Your task to perform on an android device: Add logitech g933 to the cart on newegg Image 0: 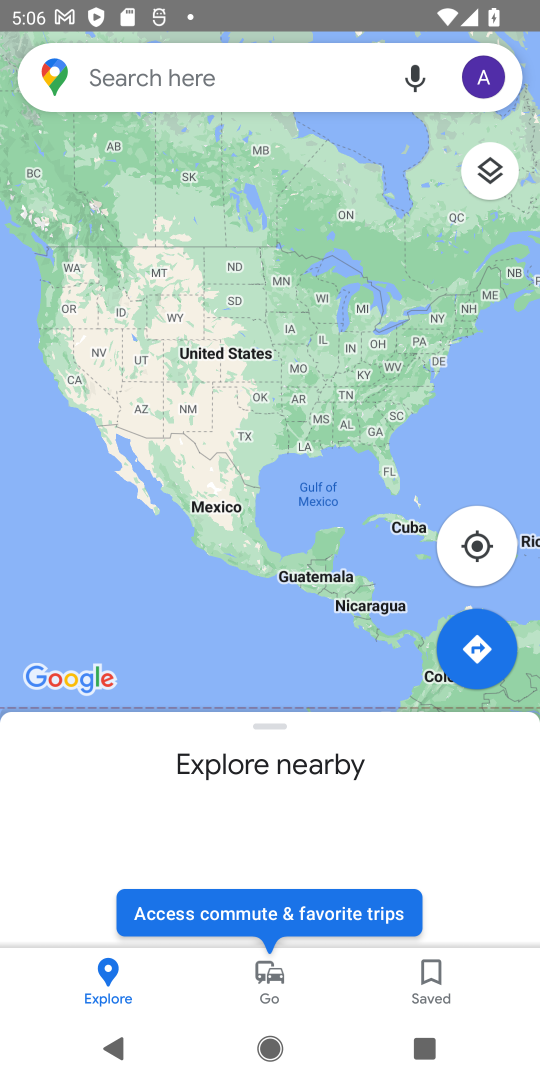
Step 0: press home button
Your task to perform on an android device: Add logitech g933 to the cart on newegg Image 1: 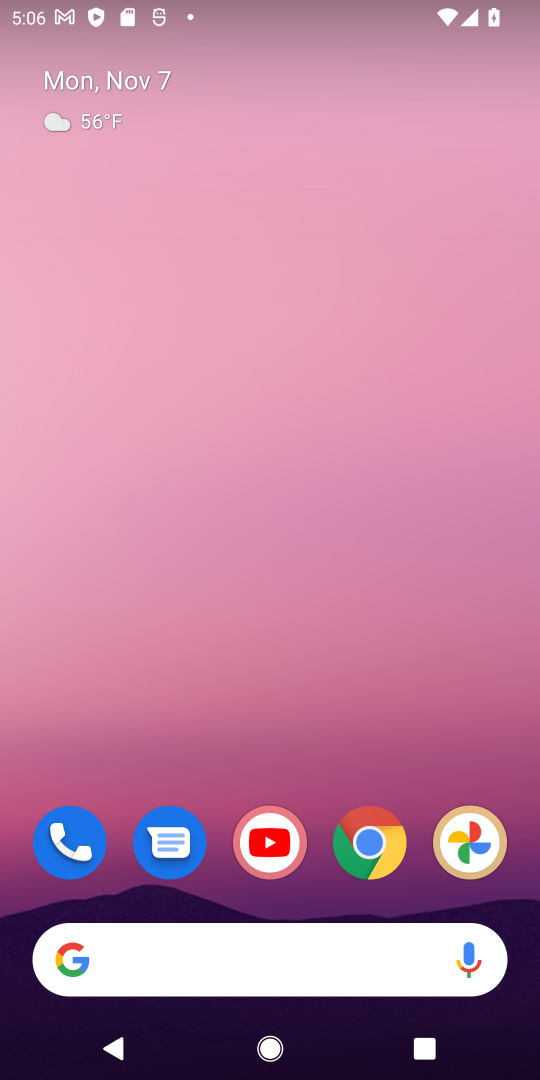
Step 1: click (363, 837)
Your task to perform on an android device: Add logitech g933 to the cart on newegg Image 2: 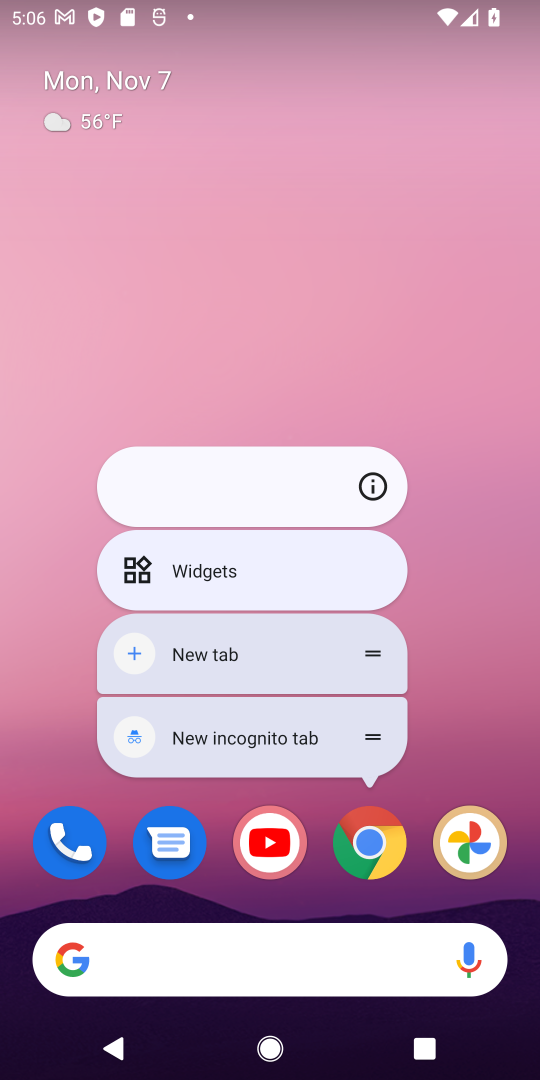
Step 2: click (365, 832)
Your task to perform on an android device: Add logitech g933 to the cart on newegg Image 3: 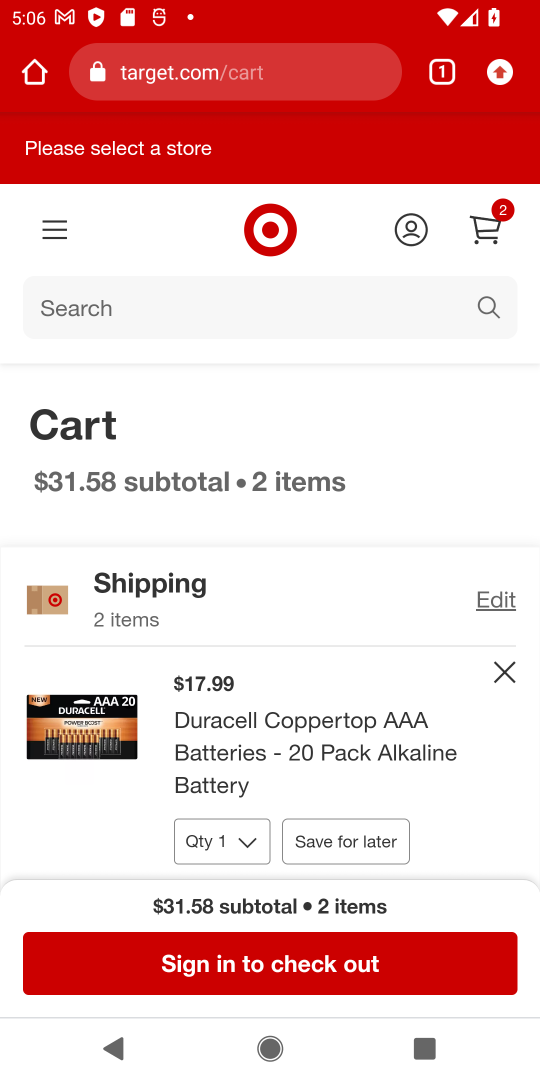
Step 3: click (196, 76)
Your task to perform on an android device: Add logitech g933 to the cart on newegg Image 4: 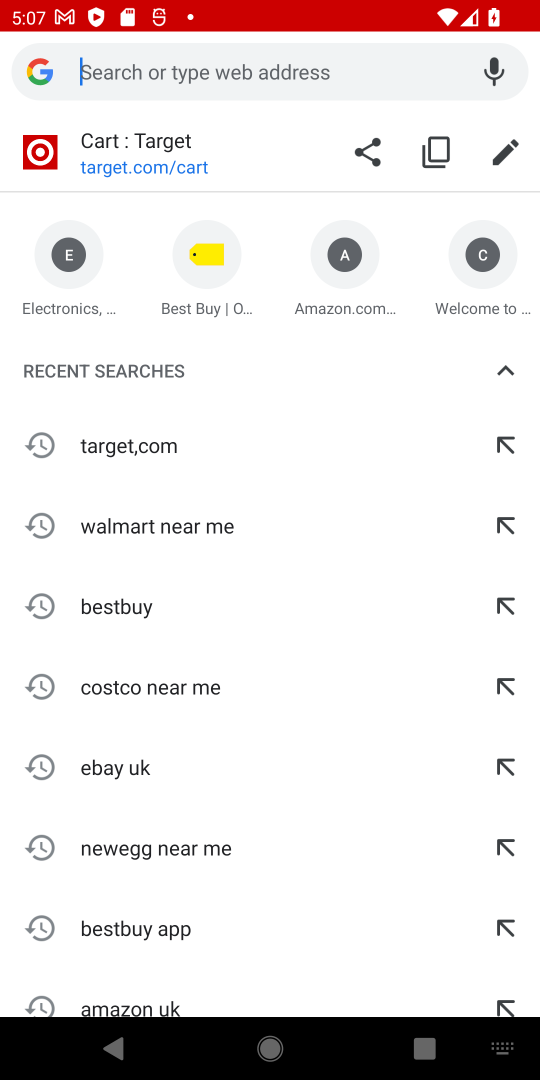
Step 4: type " newegg"
Your task to perform on an android device: Add logitech g933 to the cart on newegg Image 5: 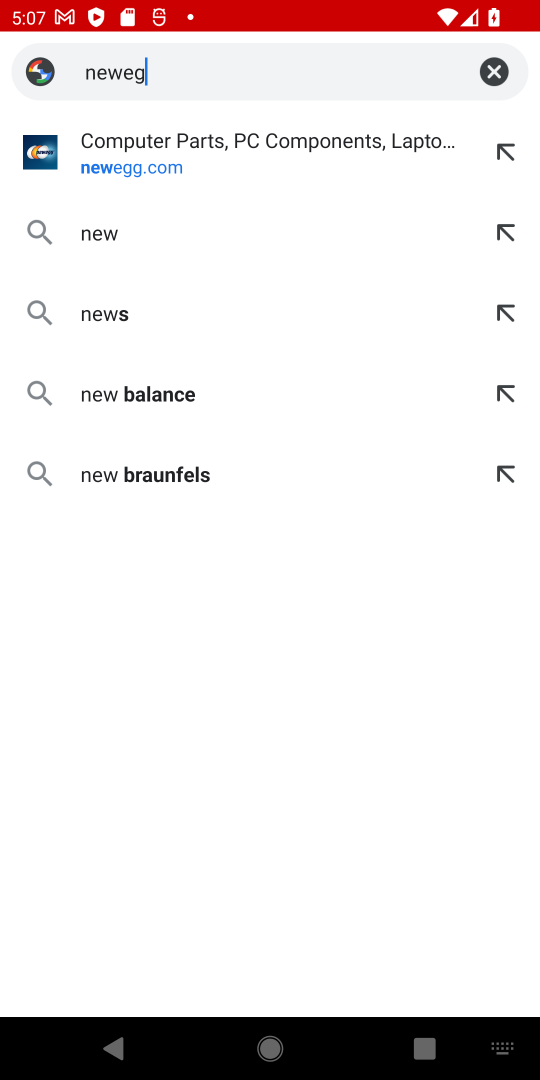
Step 5: press enter
Your task to perform on an android device: Add logitech g933 to the cart on newegg Image 6: 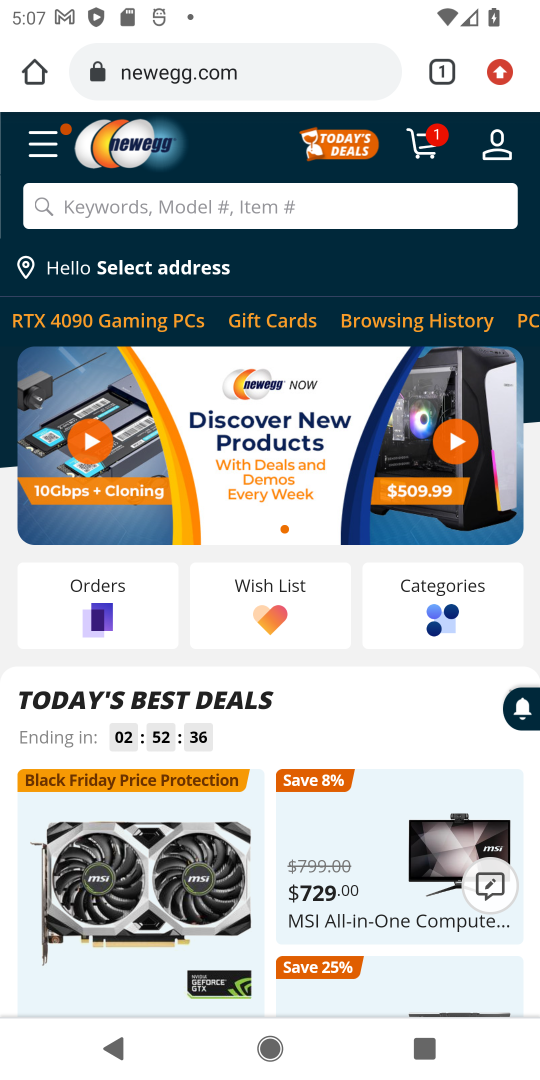
Step 6: click (263, 206)
Your task to perform on an android device: Add logitech g933 to the cart on newegg Image 7: 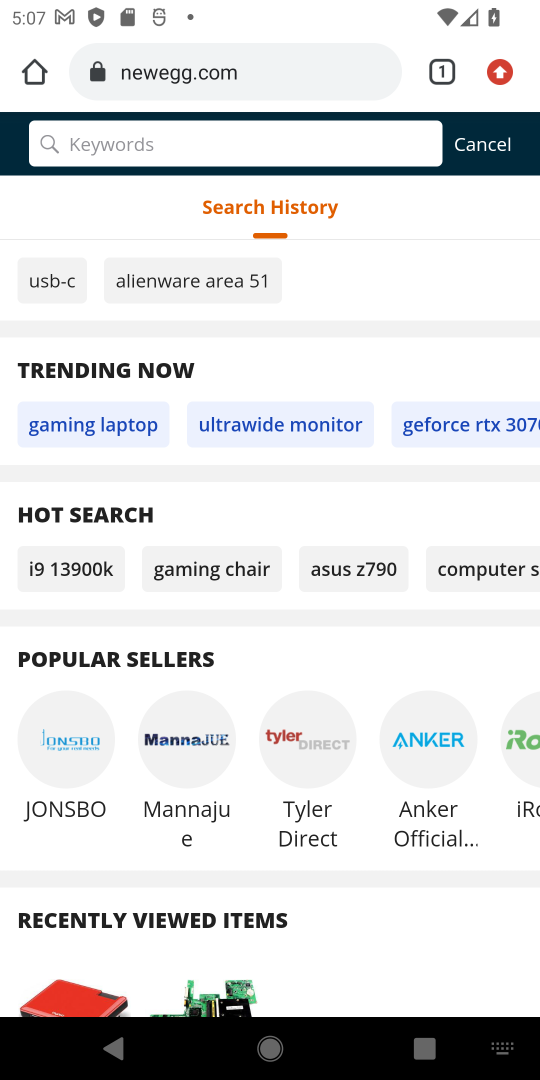
Step 7: press enter
Your task to perform on an android device: Add logitech g933 to the cart on newegg Image 8: 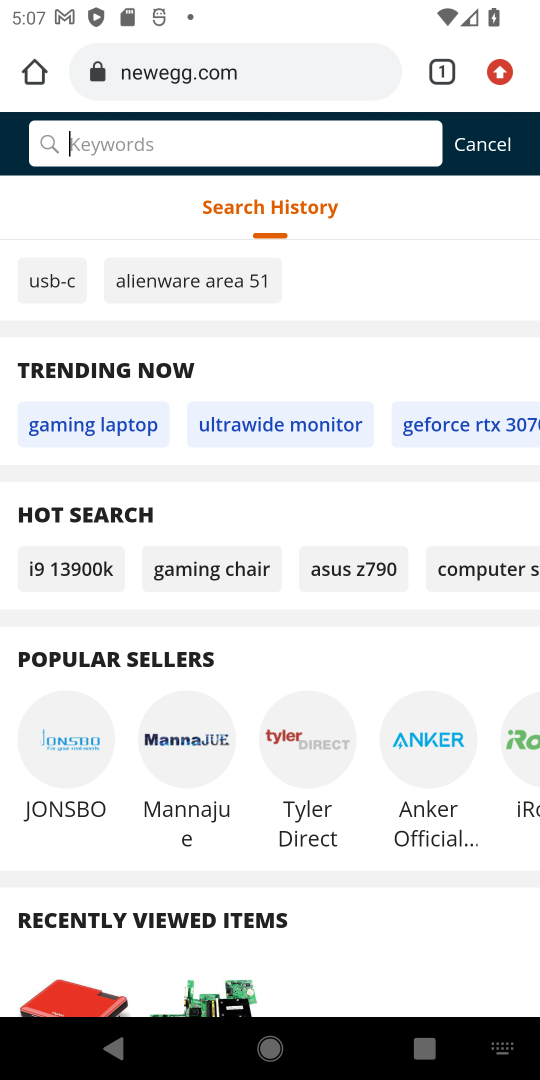
Step 8: type "logitech g933"
Your task to perform on an android device: Add logitech g933 to the cart on newegg Image 9: 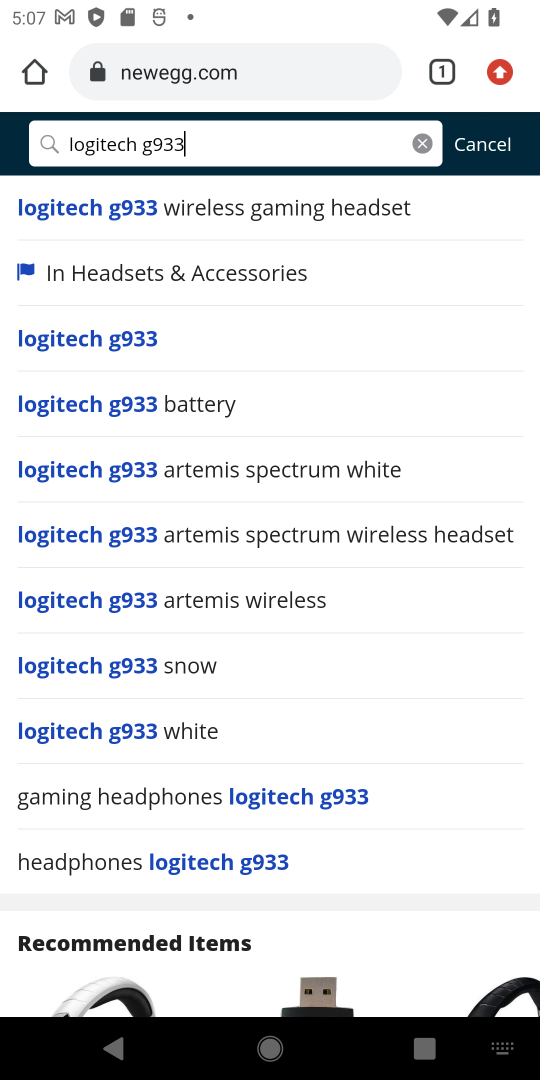
Step 9: press enter
Your task to perform on an android device: Add logitech g933 to the cart on newegg Image 10: 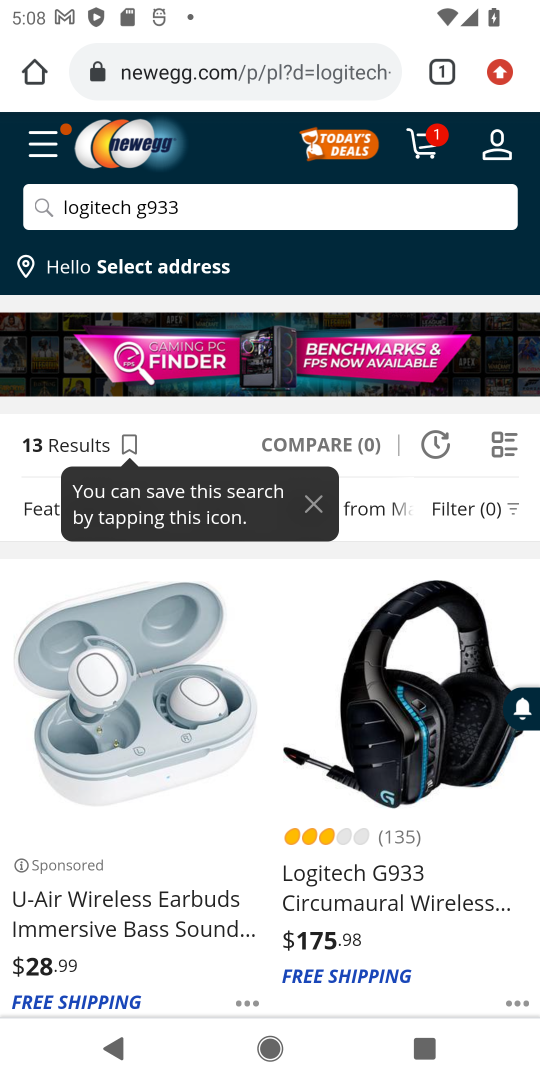
Step 10: drag from (226, 792) to (280, 539)
Your task to perform on an android device: Add logitech g933 to the cart on newegg Image 11: 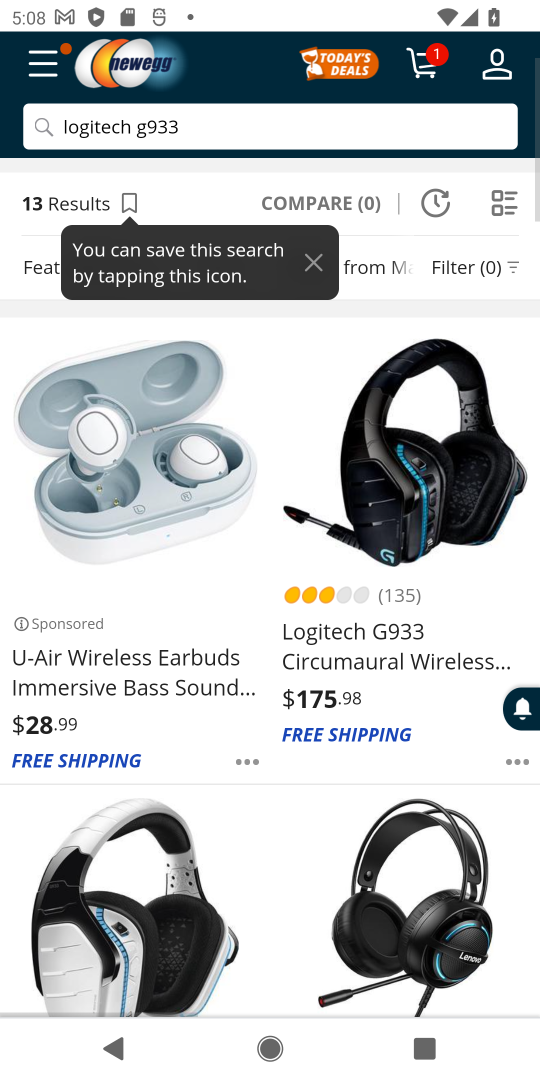
Step 11: click (392, 687)
Your task to perform on an android device: Add logitech g933 to the cart on newegg Image 12: 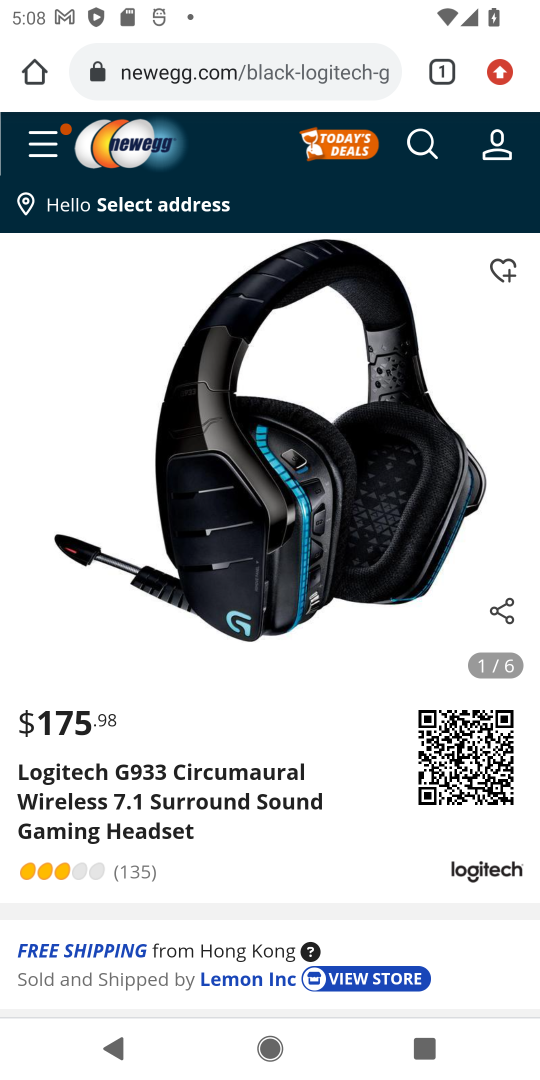
Step 12: drag from (306, 754) to (411, 157)
Your task to perform on an android device: Add logitech g933 to the cart on newegg Image 13: 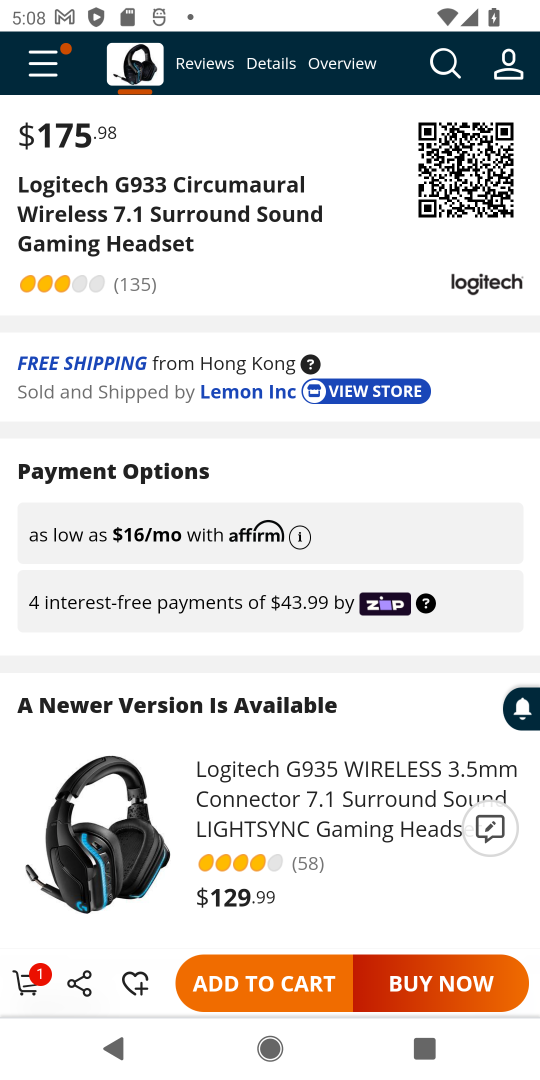
Step 13: click (240, 977)
Your task to perform on an android device: Add logitech g933 to the cart on newegg Image 14: 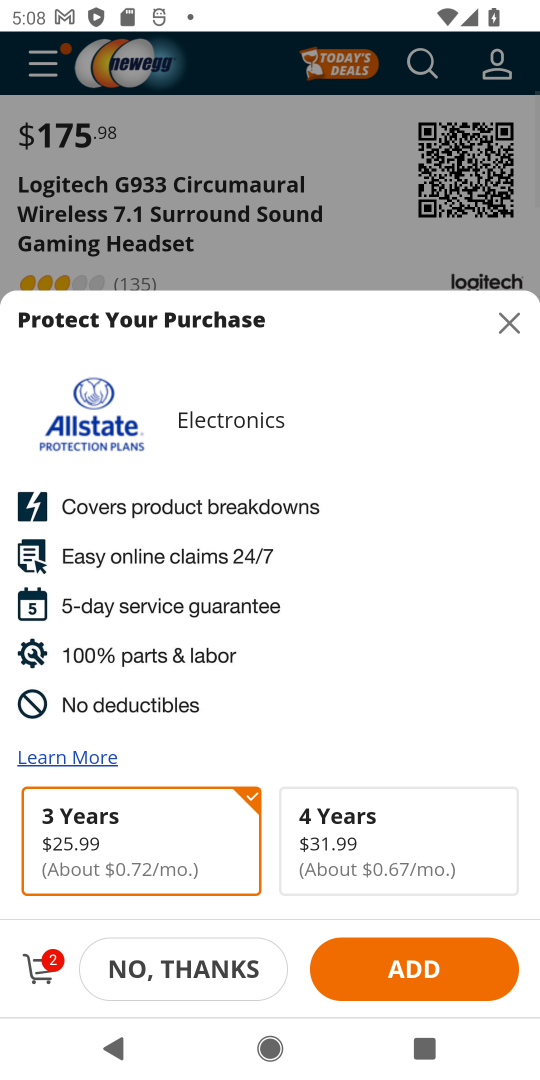
Step 14: click (206, 965)
Your task to perform on an android device: Add logitech g933 to the cart on newegg Image 15: 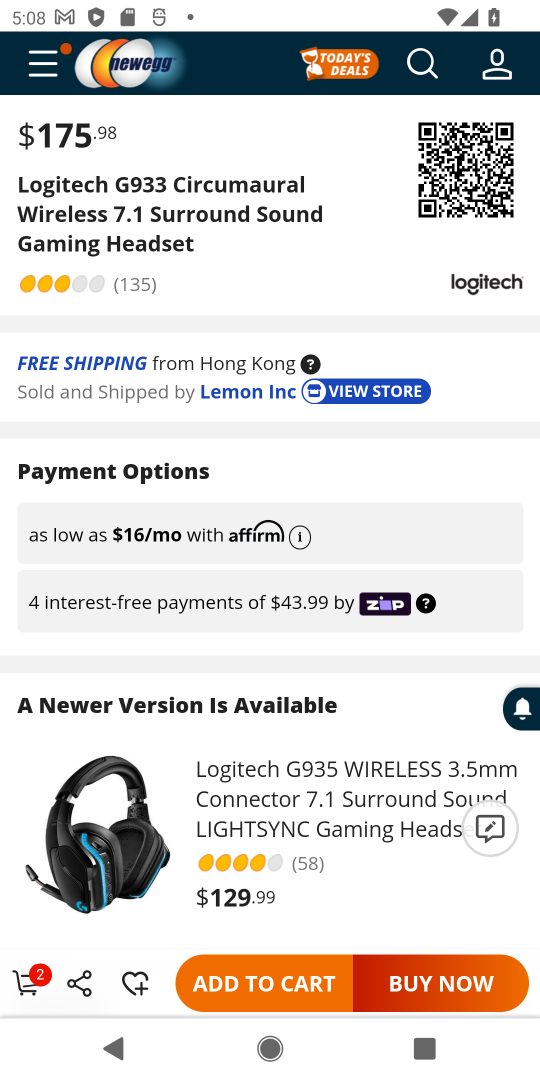
Step 15: click (32, 977)
Your task to perform on an android device: Add logitech g933 to the cart on newegg Image 16: 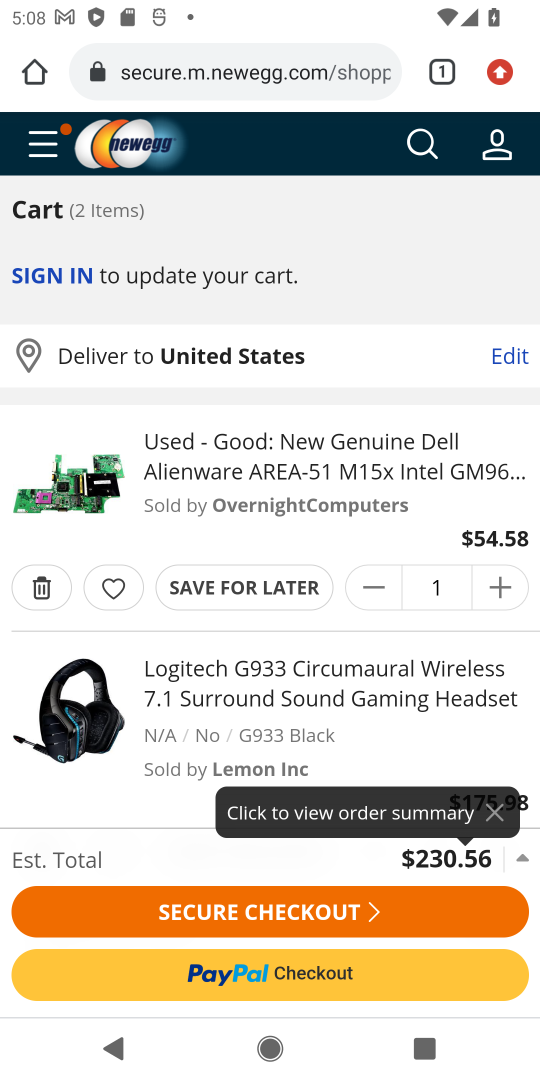
Step 16: click (54, 567)
Your task to perform on an android device: Add logitech g933 to the cart on newegg Image 17: 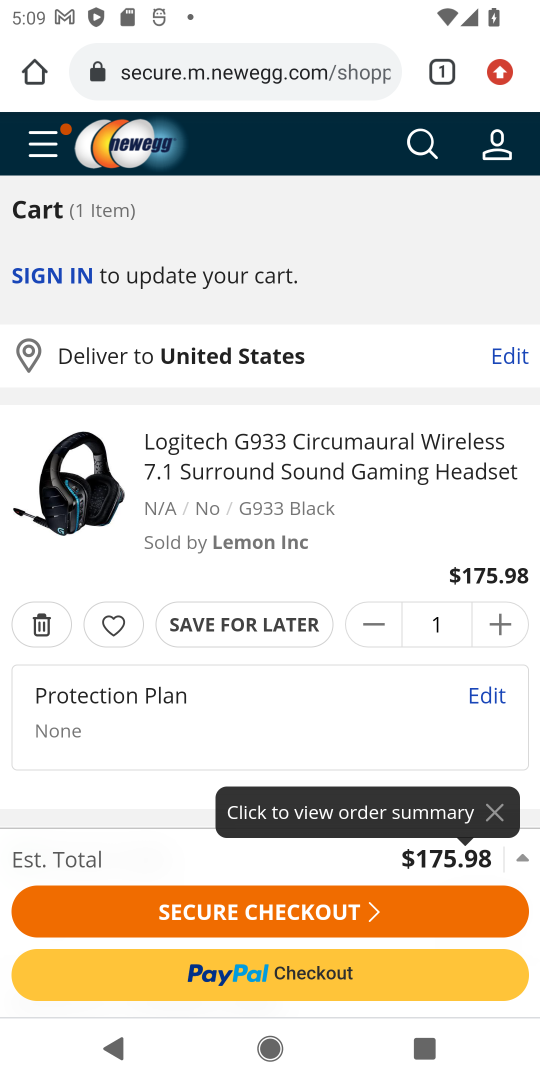
Step 17: task complete